Your task to perform on an android device: toggle location history Image 0: 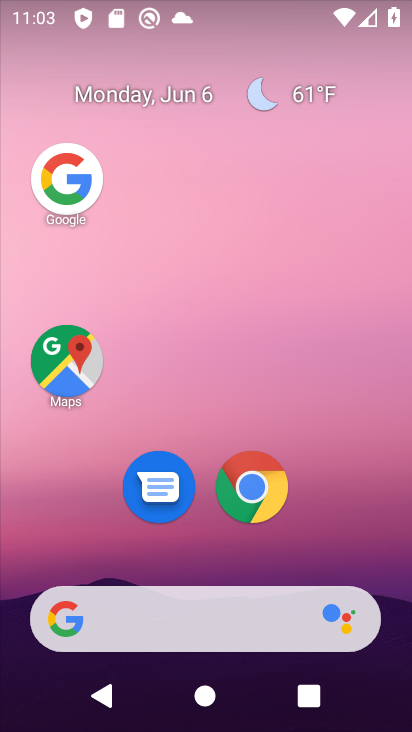
Step 0: drag from (351, 505) to (298, 20)
Your task to perform on an android device: toggle location history Image 1: 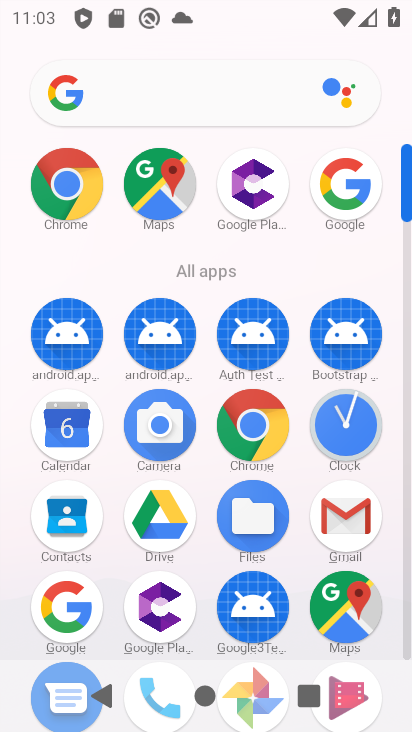
Step 1: drag from (302, 489) to (273, 61)
Your task to perform on an android device: toggle location history Image 2: 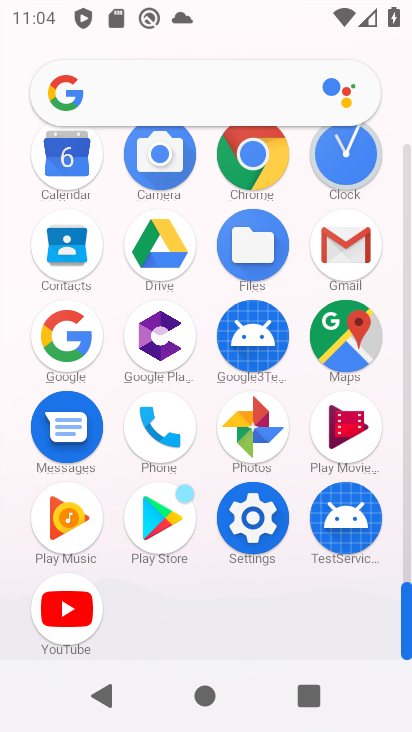
Step 2: drag from (253, 514) to (81, 265)
Your task to perform on an android device: toggle location history Image 3: 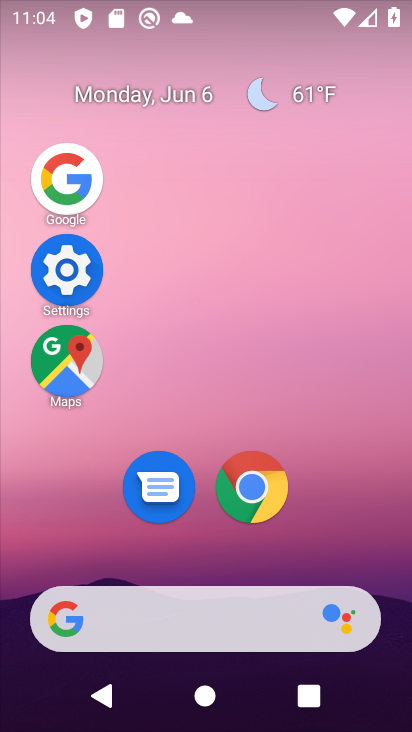
Step 3: click (76, 265)
Your task to perform on an android device: toggle location history Image 4: 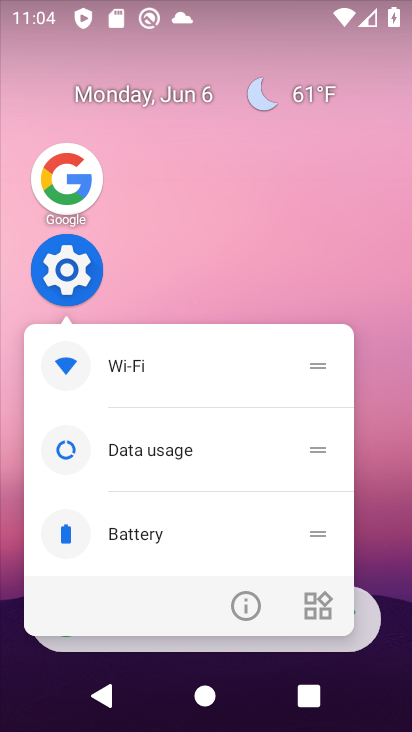
Step 4: click (86, 260)
Your task to perform on an android device: toggle location history Image 5: 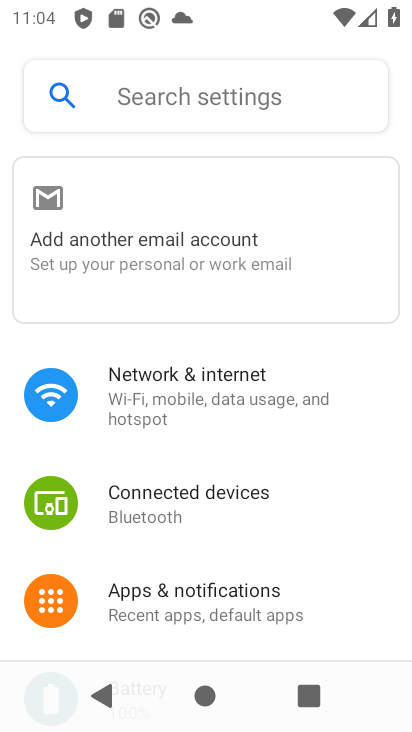
Step 5: drag from (298, 431) to (277, 126)
Your task to perform on an android device: toggle location history Image 6: 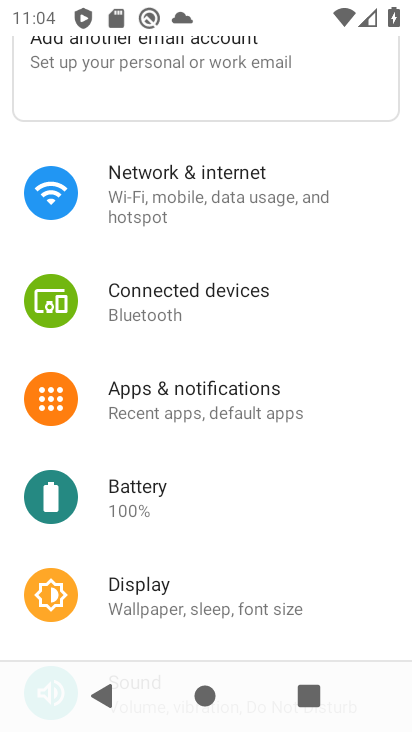
Step 6: drag from (300, 560) to (286, 195)
Your task to perform on an android device: toggle location history Image 7: 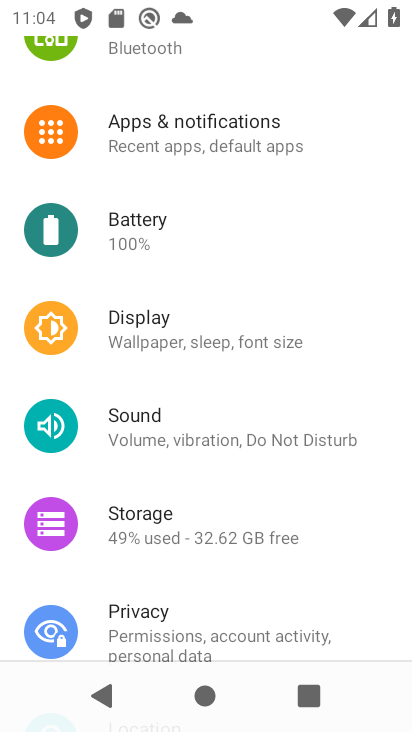
Step 7: drag from (249, 461) to (266, 182)
Your task to perform on an android device: toggle location history Image 8: 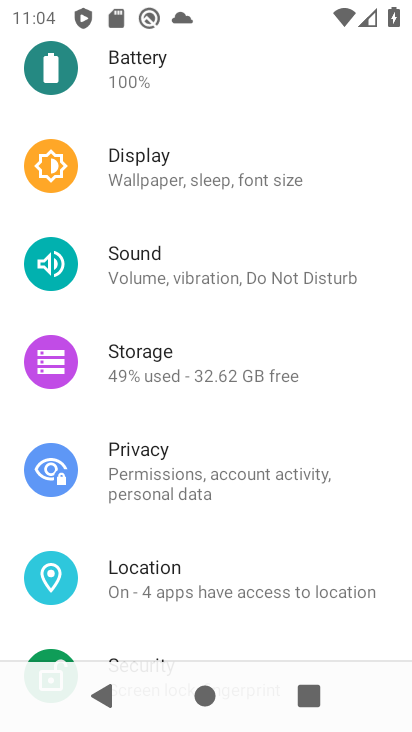
Step 8: click (186, 591)
Your task to perform on an android device: toggle location history Image 9: 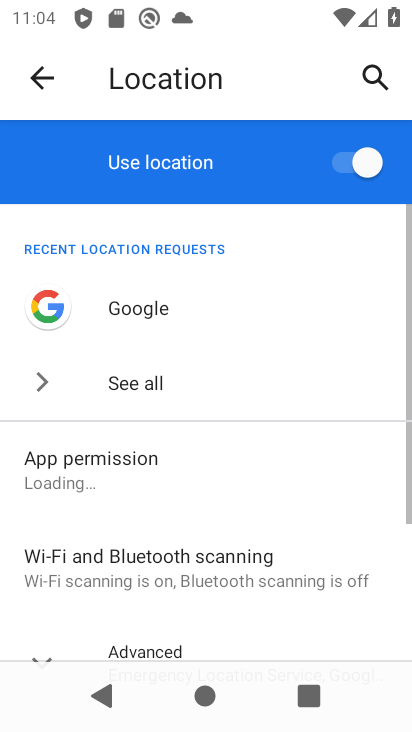
Step 9: drag from (182, 577) to (186, 196)
Your task to perform on an android device: toggle location history Image 10: 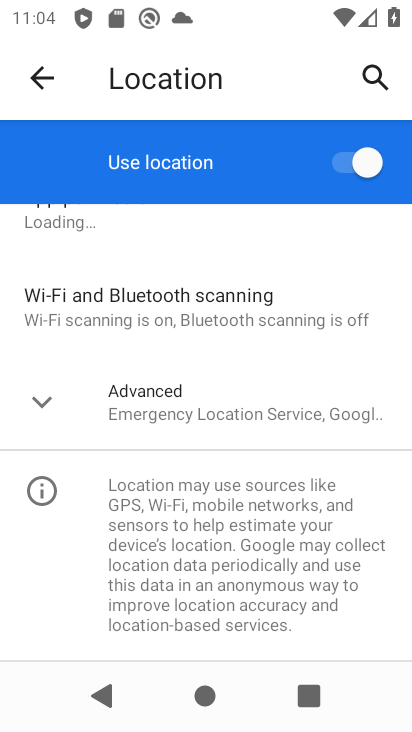
Step 10: click (210, 407)
Your task to perform on an android device: toggle location history Image 11: 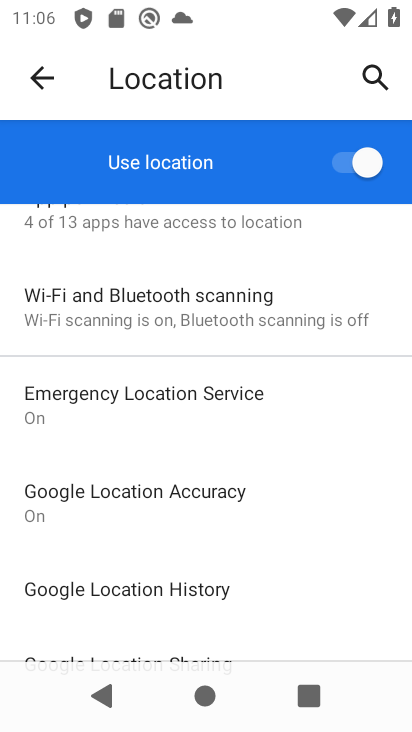
Step 11: click (201, 582)
Your task to perform on an android device: toggle location history Image 12: 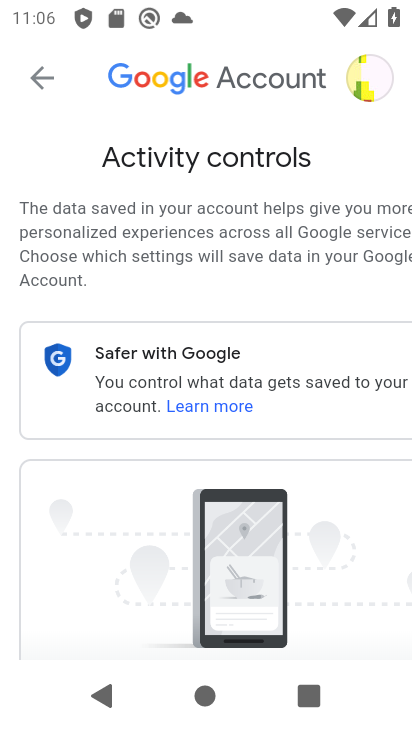
Step 12: drag from (331, 286) to (288, 0)
Your task to perform on an android device: toggle location history Image 13: 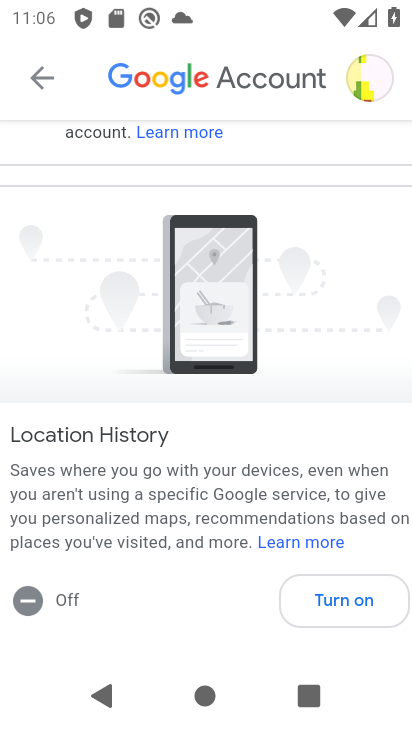
Step 13: click (321, 596)
Your task to perform on an android device: toggle location history Image 14: 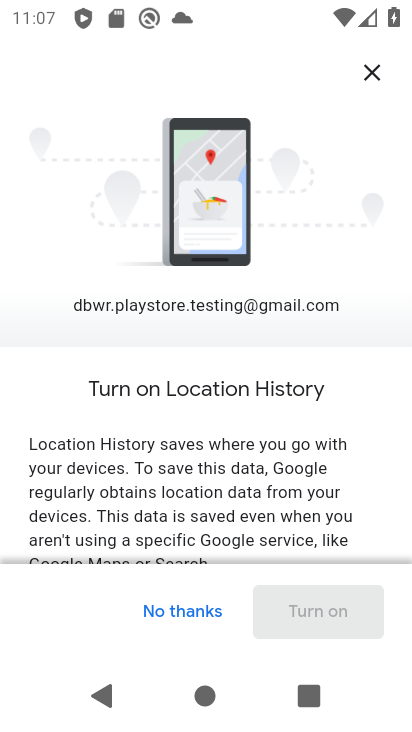
Step 14: drag from (305, 483) to (314, 123)
Your task to perform on an android device: toggle location history Image 15: 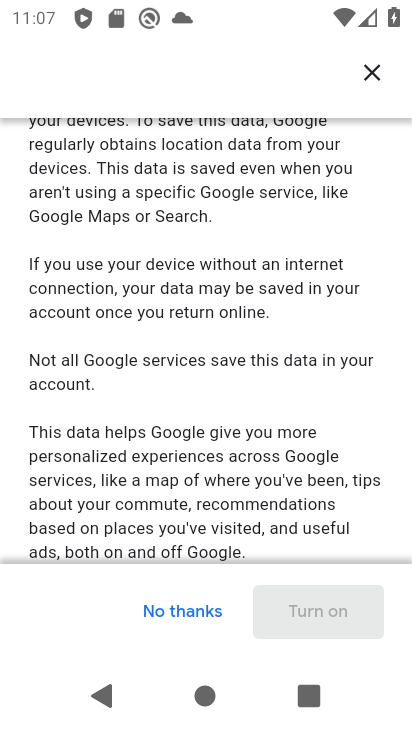
Step 15: drag from (273, 425) to (258, 93)
Your task to perform on an android device: toggle location history Image 16: 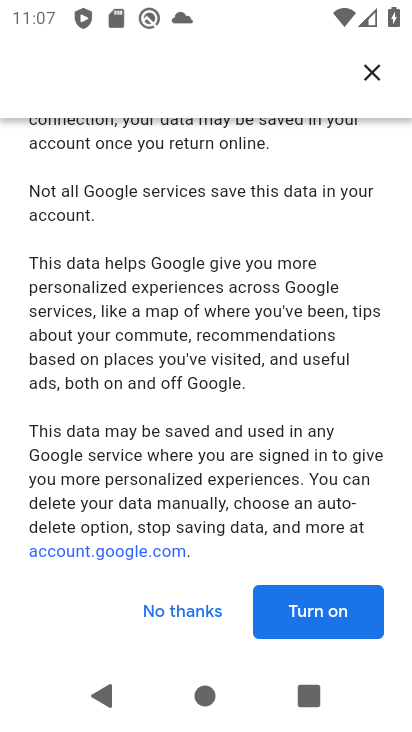
Step 16: click (310, 609)
Your task to perform on an android device: toggle location history Image 17: 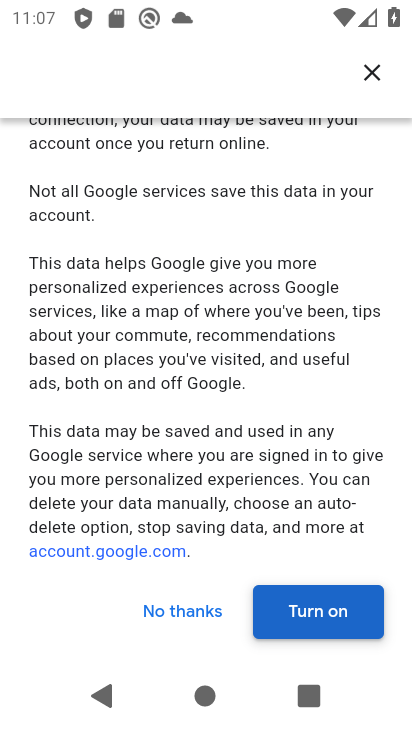
Step 17: click (310, 614)
Your task to perform on an android device: toggle location history Image 18: 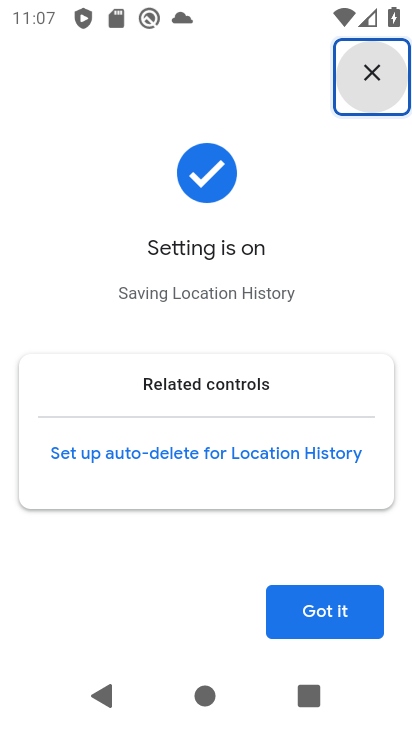
Step 18: click (293, 613)
Your task to perform on an android device: toggle location history Image 19: 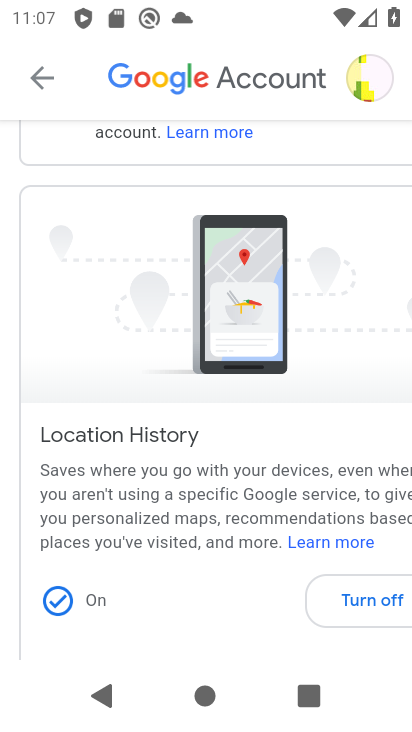
Step 19: task complete